Your task to perform on an android device: Go to wifi settings Image 0: 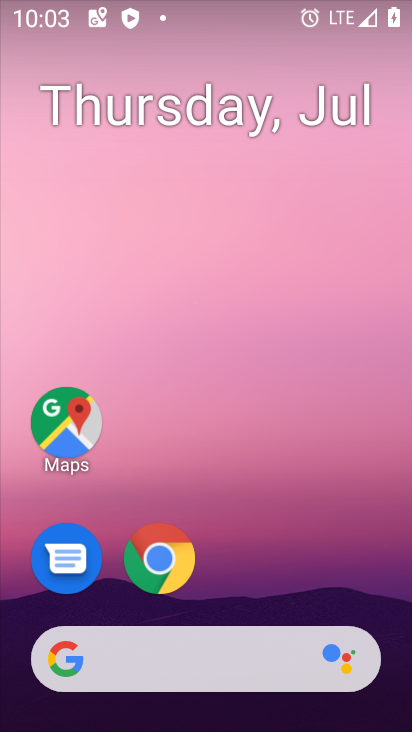
Step 0: drag from (378, 564) to (381, 185)
Your task to perform on an android device: Go to wifi settings Image 1: 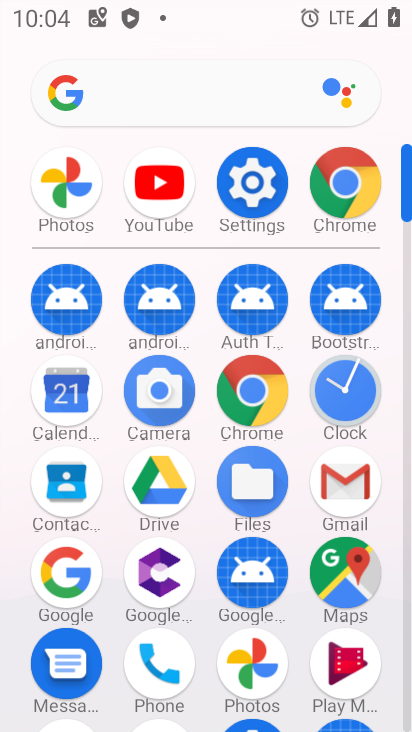
Step 1: click (261, 206)
Your task to perform on an android device: Go to wifi settings Image 2: 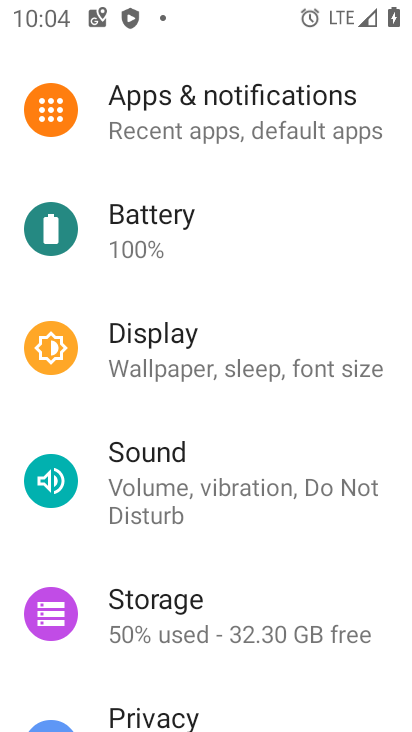
Step 2: drag from (323, 236) to (330, 312)
Your task to perform on an android device: Go to wifi settings Image 3: 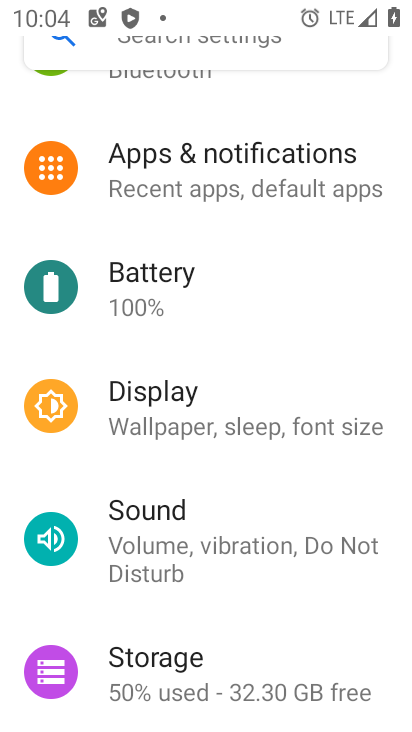
Step 3: drag from (357, 251) to (359, 346)
Your task to perform on an android device: Go to wifi settings Image 4: 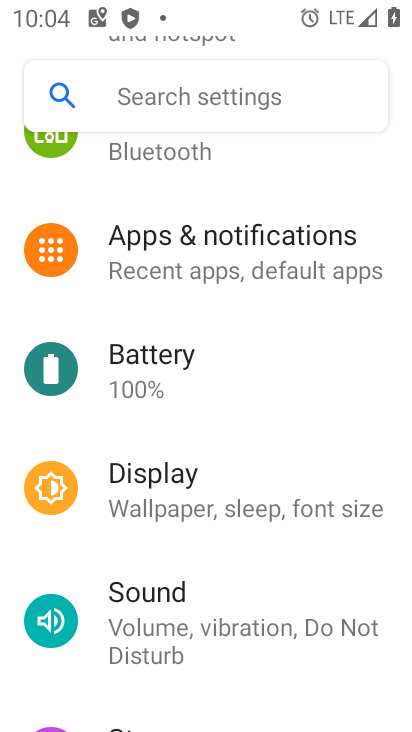
Step 4: drag from (380, 239) to (380, 346)
Your task to perform on an android device: Go to wifi settings Image 5: 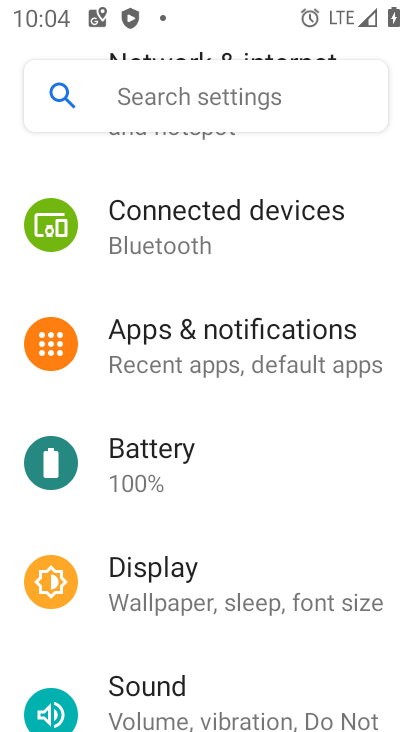
Step 5: drag from (371, 238) to (368, 347)
Your task to perform on an android device: Go to wifi settings Image 6: 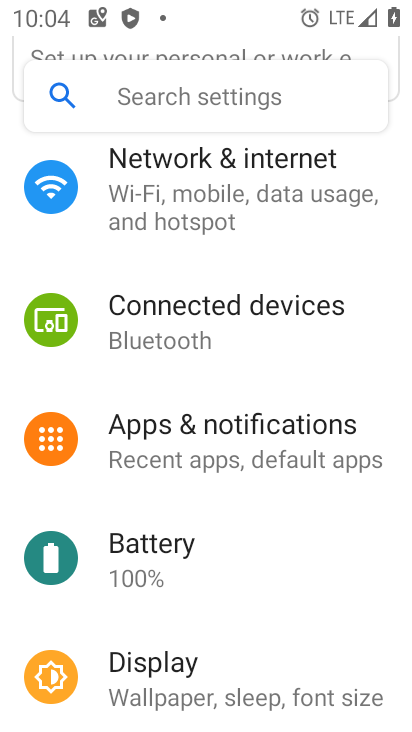
Step 6: drag from (370, 238) to (377, 361)
Your task to perform on an android device: Go to wifi settings Image 7: 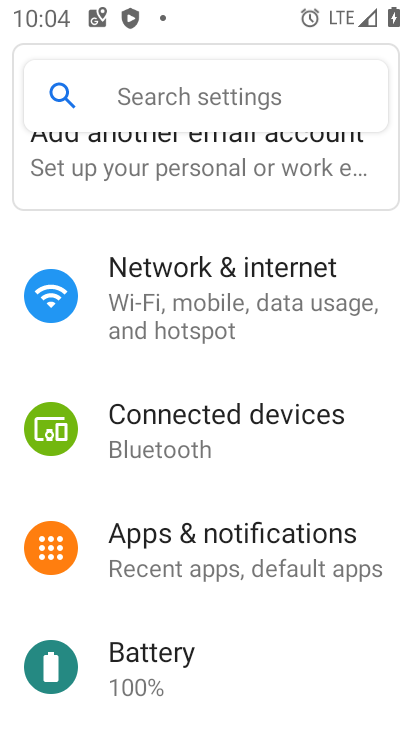
Step 7: drag from (366, 241) to (362, 409)
Your task to perform on an android device: Go to wifi settings Image 8: 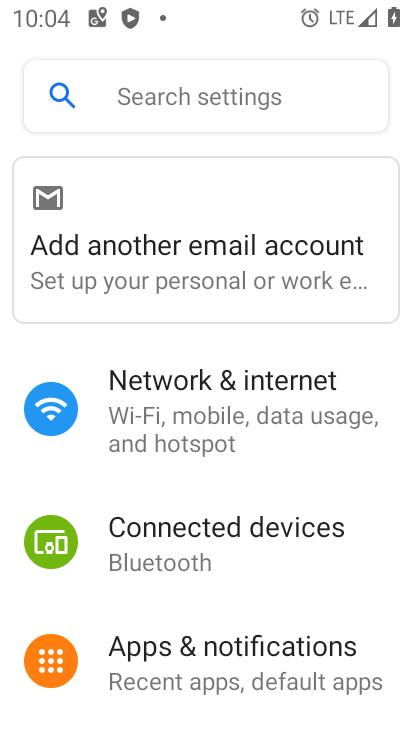
Step 8: click (349, 403)
Your task to perform on an android device: Go to wifi settings Image 9: 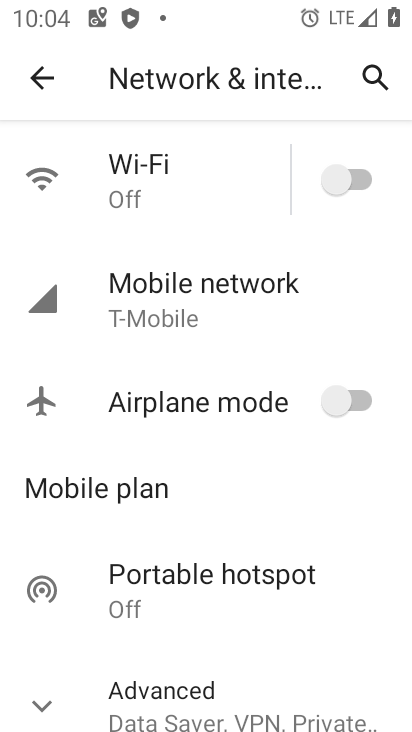
Step 9: click (209, 188)
Your task to perform on an android device: Go to wifi settings Image 10: 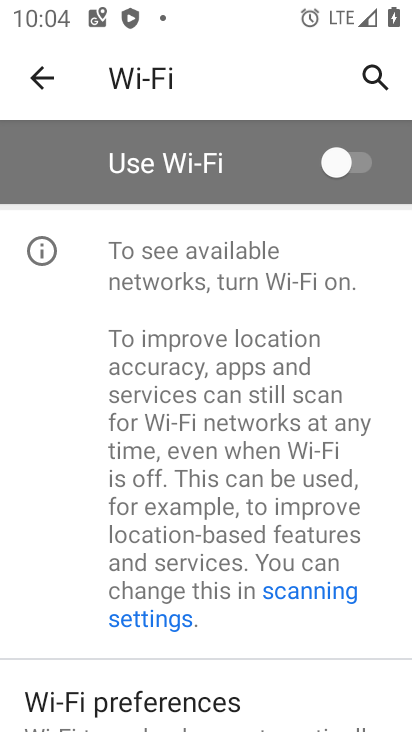
Step 10: task complete